Your task to perform on an android device: Go to accessibility settings Image 0: 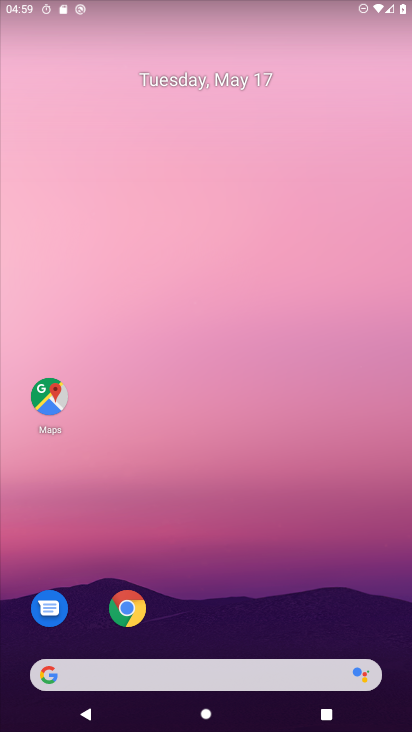
Step 0: drag from (170, 658) to (138, 228)
Your task to perform on an android device: Go to accessibility settings Image 1: 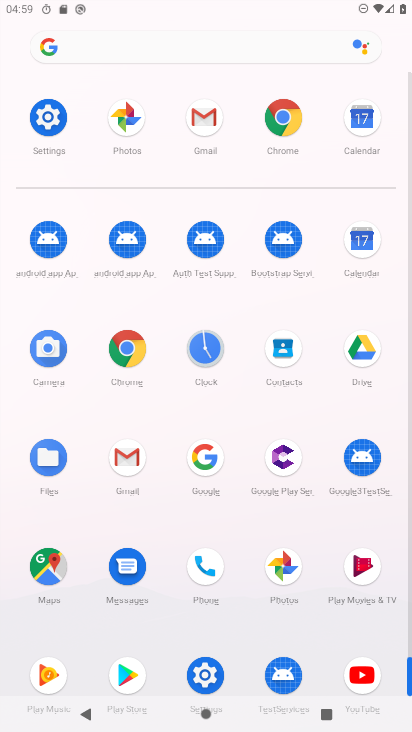
Step 1: click (57, 124)
Your task to perform on an android device: Go to accessibility settings Image 2: 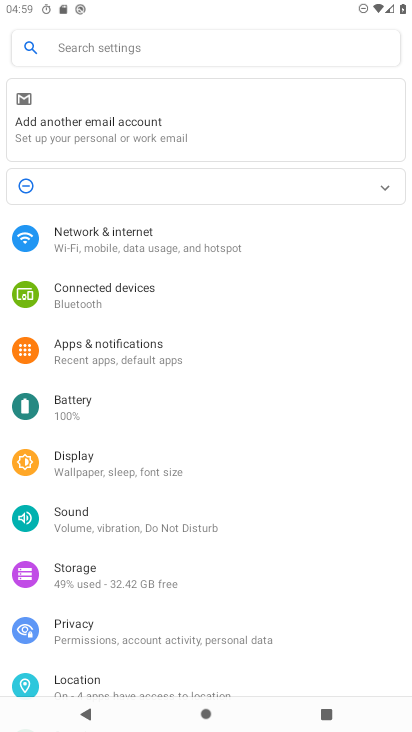
Step 2: drag from (185, 667) to (219, 340)
Your task to perform on an android device: Go to accessibility settings Image 3: 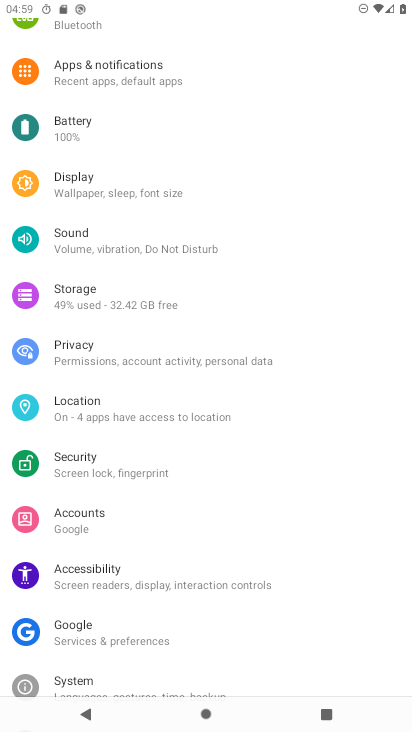
Step 3: click (77, 594)
Your task to perform on an android device: Go to accessibility settings Image 4: 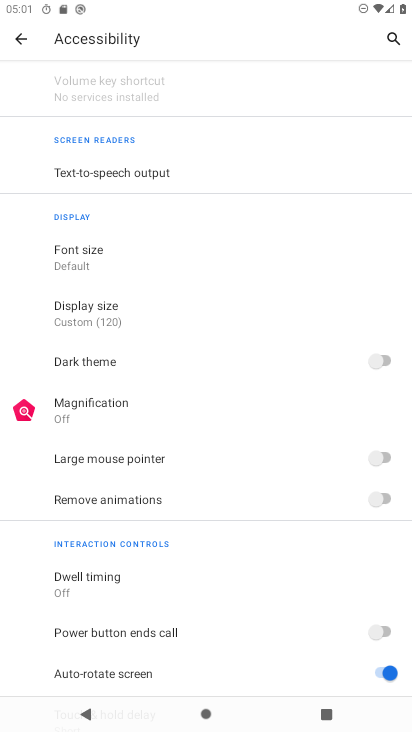
Step 4: task complete